Your task to perform on an android device: turn on bluetooth scan Image 0: 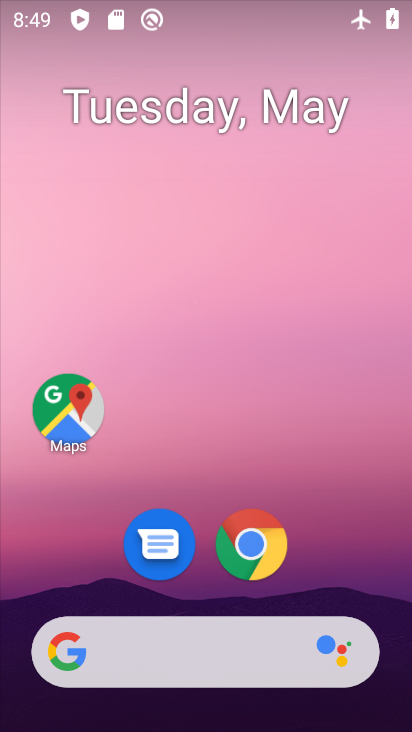
Step 0: drag from (340, 567) to (308, 209)
Your task to perform on an android device: turn on bluetooth scan Image 1: 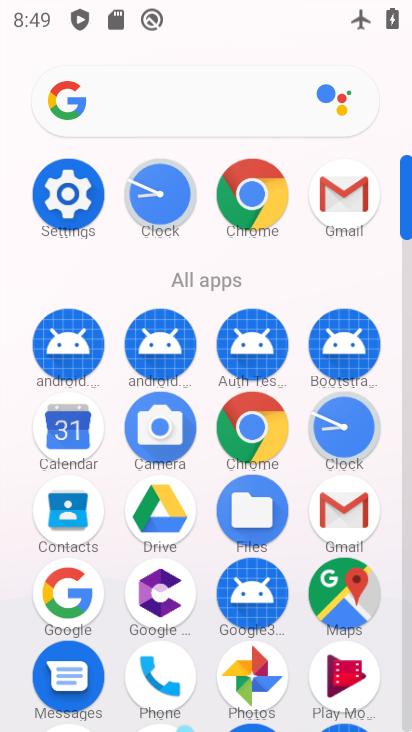
Step 1: click (72, 206)
Your task to perform on an android device: turn on bluetooth scan Image 2: 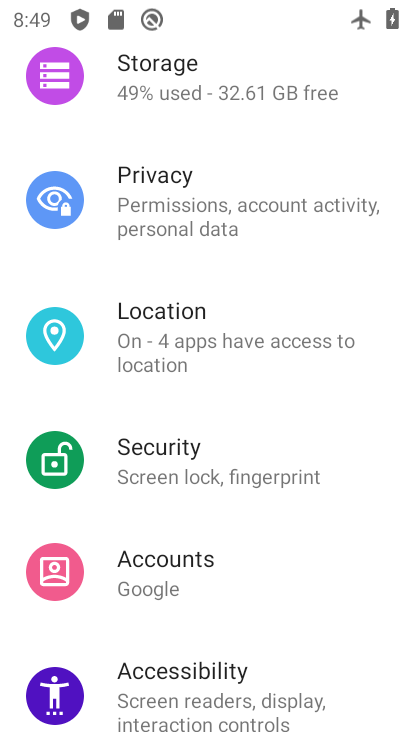
Step 2: drag from (312, 623) to (324, 225)
Your task to perform on an android device: turn on bluetooth scan Image 3: 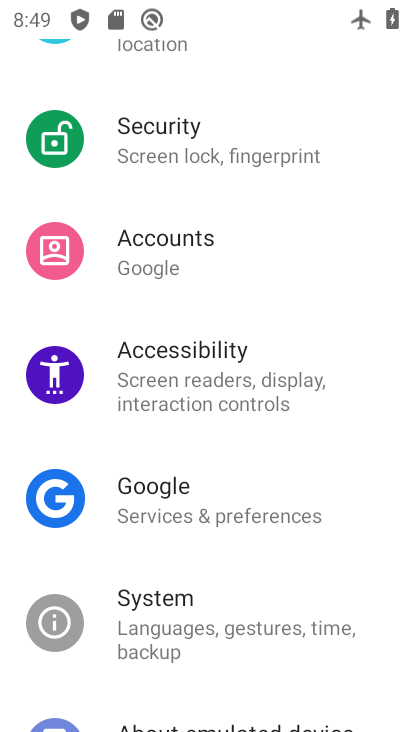
Step 3: drag from (315, 631) to (300, 327)
Your task to perform on an android device: turn on bluetooth scan Image 4: 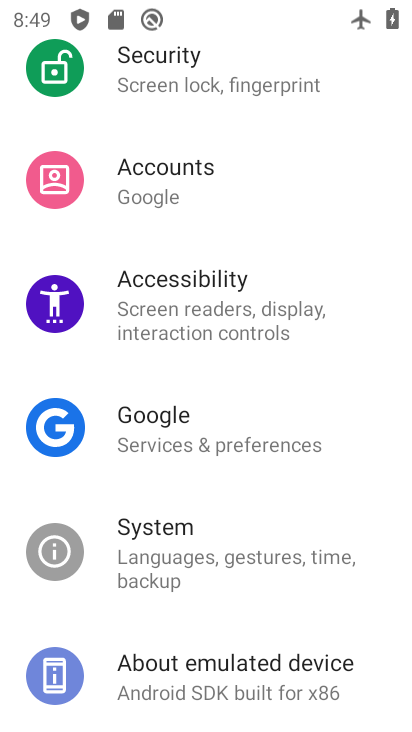
Step 4: drag from (255, 635) to (270, 322)
Your task to perform on an android device: turn on bluetooth scan Image 5: 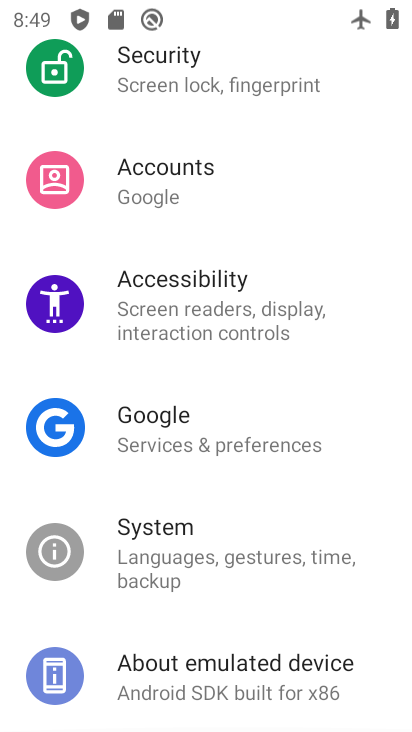
Step 5: drag from (282, 81) to (291, 607)
Your task to perform on an android device: turn on bluetooth scan Image 6: 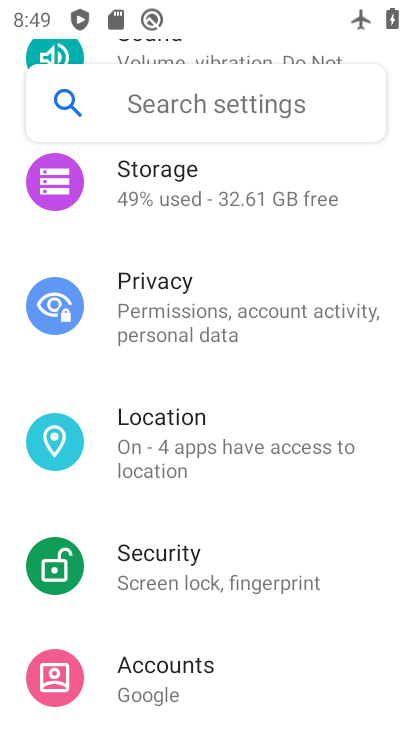
Step 6: click (215, 484)
Your task to perform on an android device: turn on bluetooth scan Image 7: 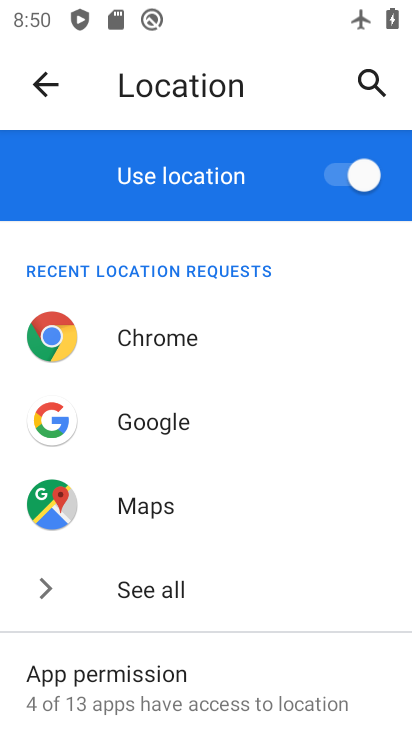
Step 7: drag from (233, 657) to (247, 383)
Your task to perform on an android device: turn on bluetooth scan Image 8: 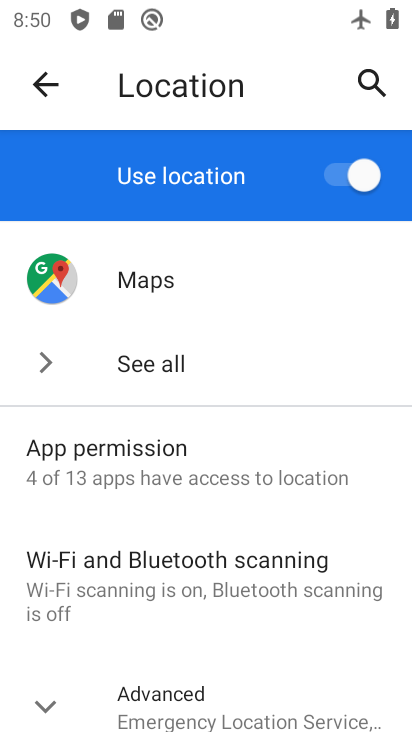
Step 8: click (230, 565)
Your task to perform on an android device: turn on bluetooth scan Image 9: 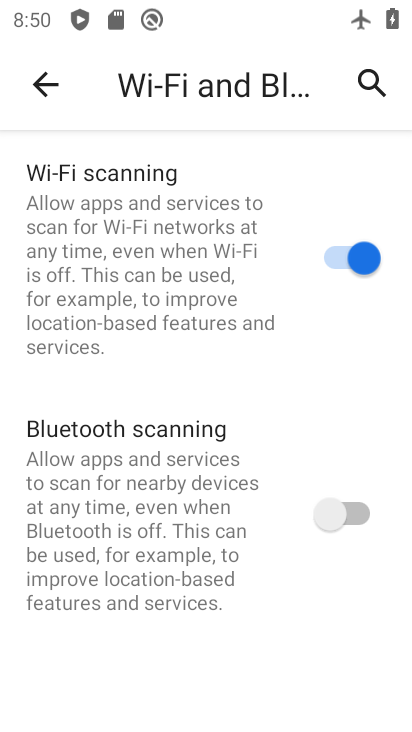
Step 9: click (347, 515)
Your task to perform on an android device: turn on bluetooth scan Image 10: 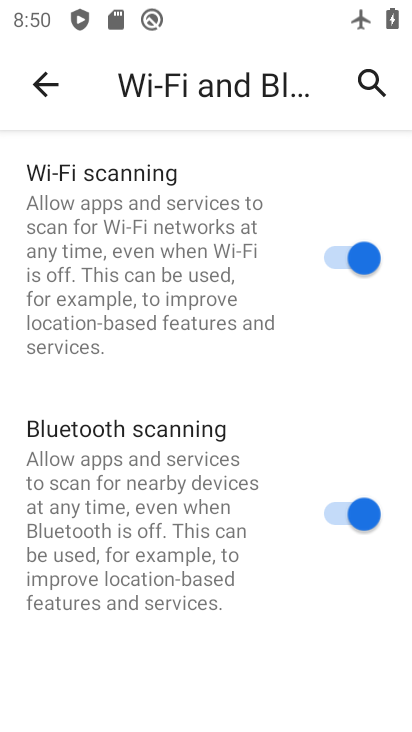
Step 10: task complete